Your task to perform on an android device: open app "Cash App" (install if not already installed) Image 0: 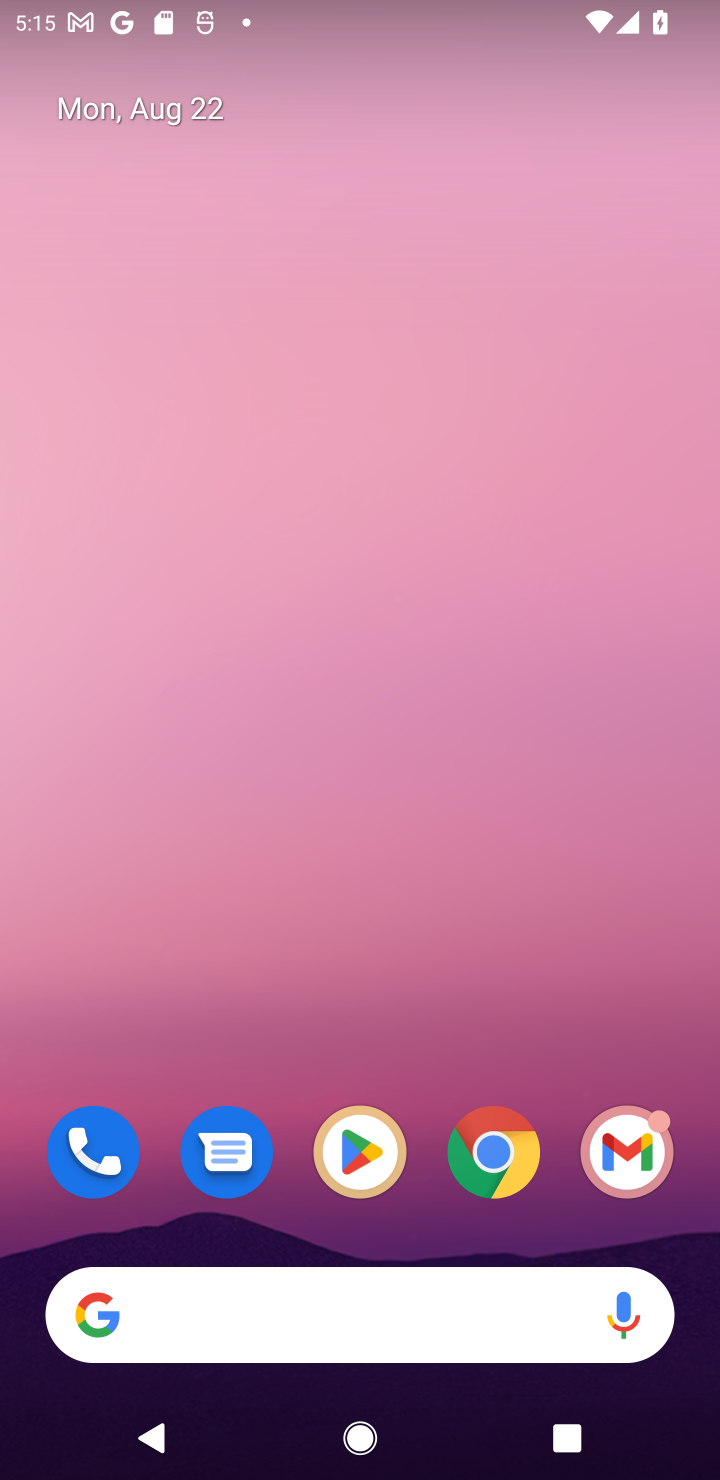
Step 0: click (359, 1154)
Your task to perform on an android device: open app "Cash App" (install if not already installed) Image 1: 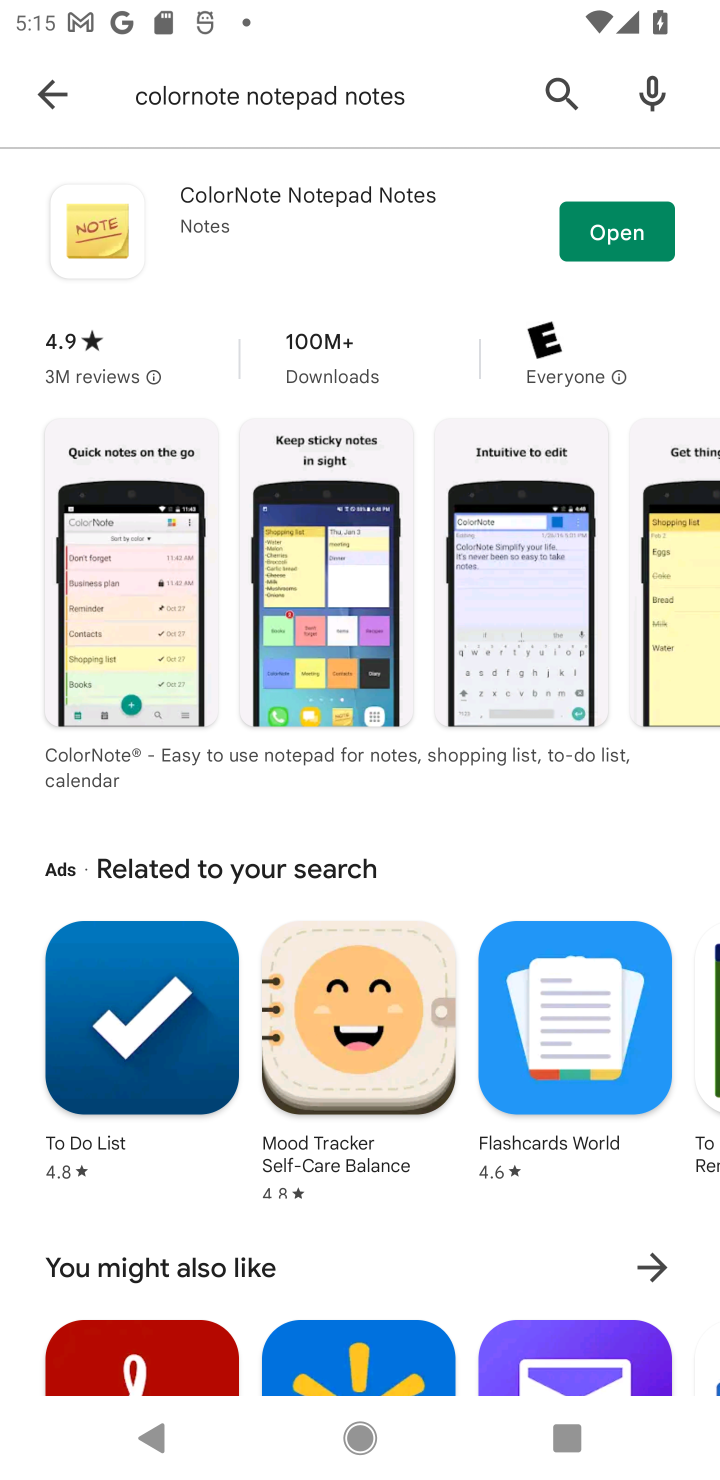
Step 1: click (24, 102)
Your task to perform on an android device: open app "Cash App" (install if not already installed) Image 2: 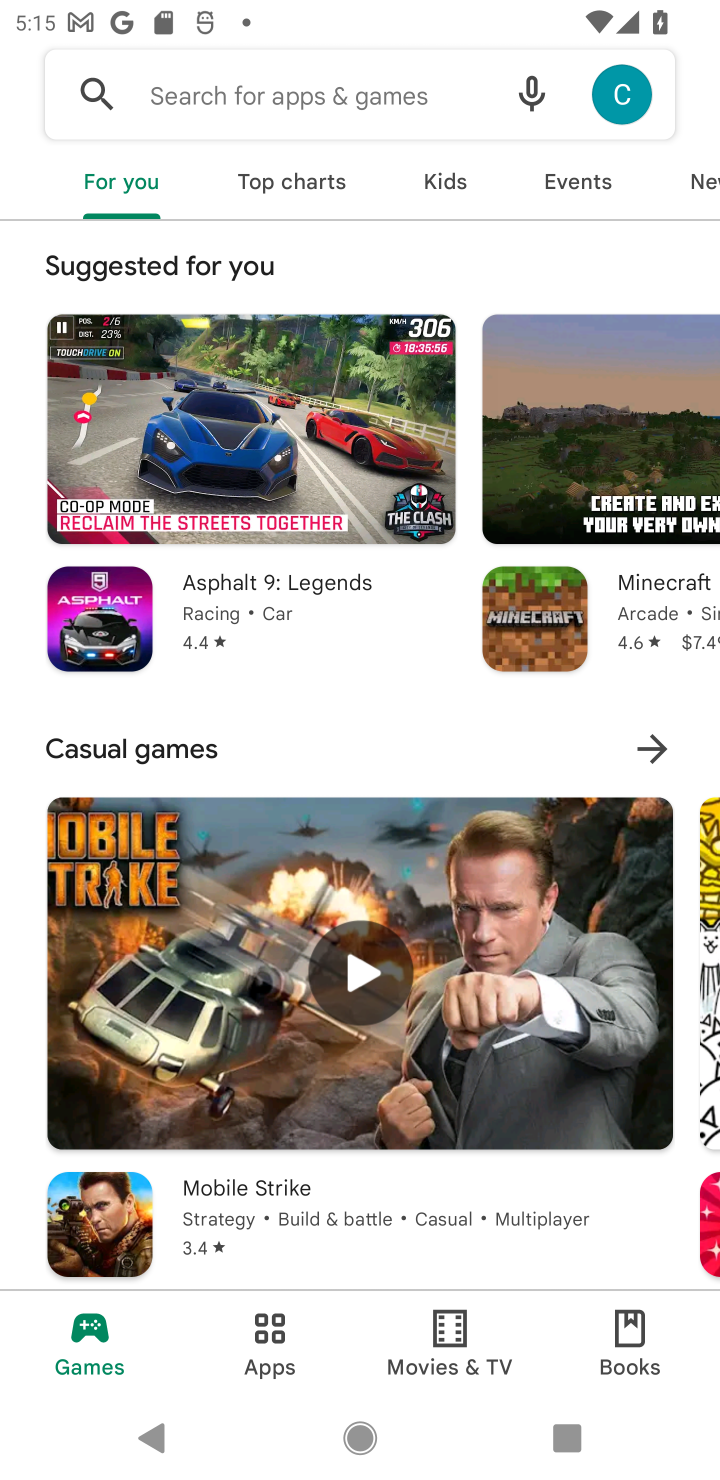
Step 2: click (203, 115)
Your task to perform on an android device: open app "Cash App" (install if not already installed) Image 3: 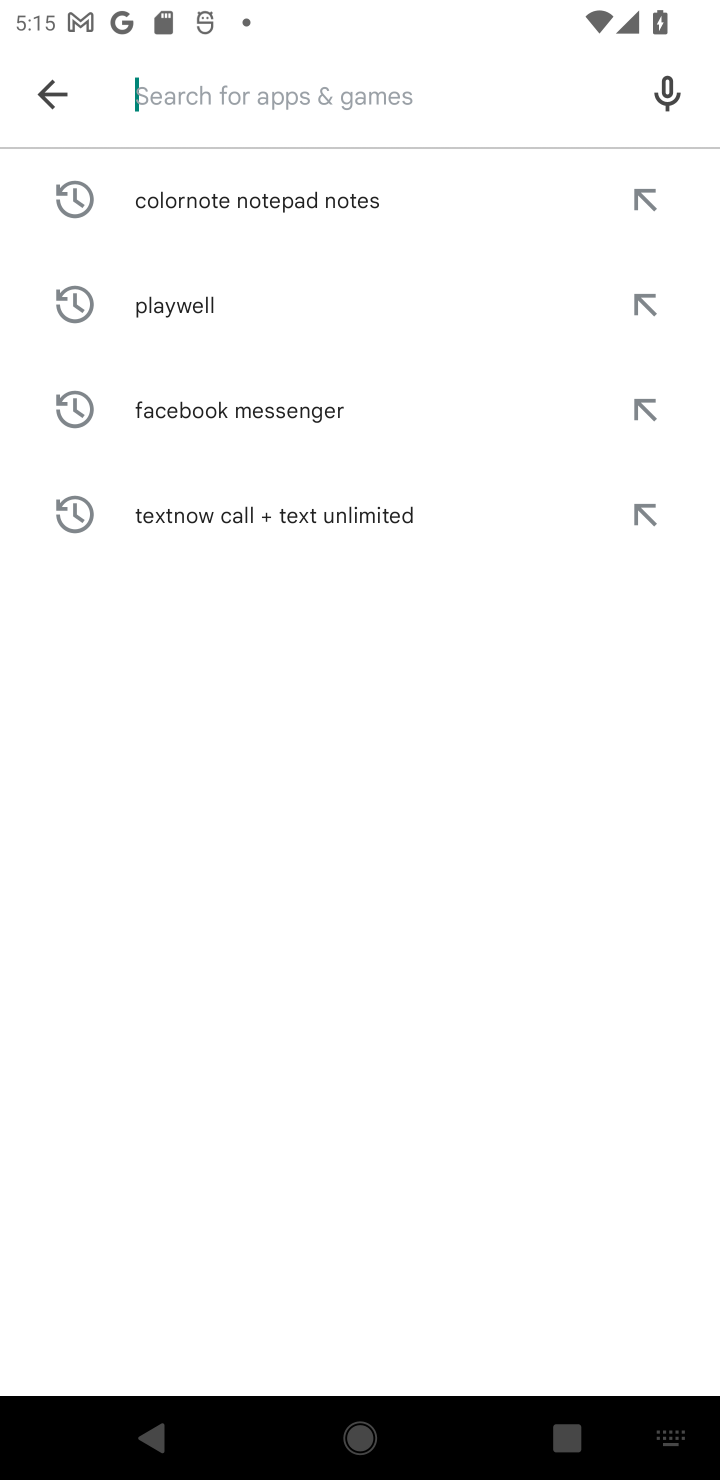
Step 3: type "Cash App"
Your task to perform on an android device: open app "Cash App" (install if not already installed) Image 4: 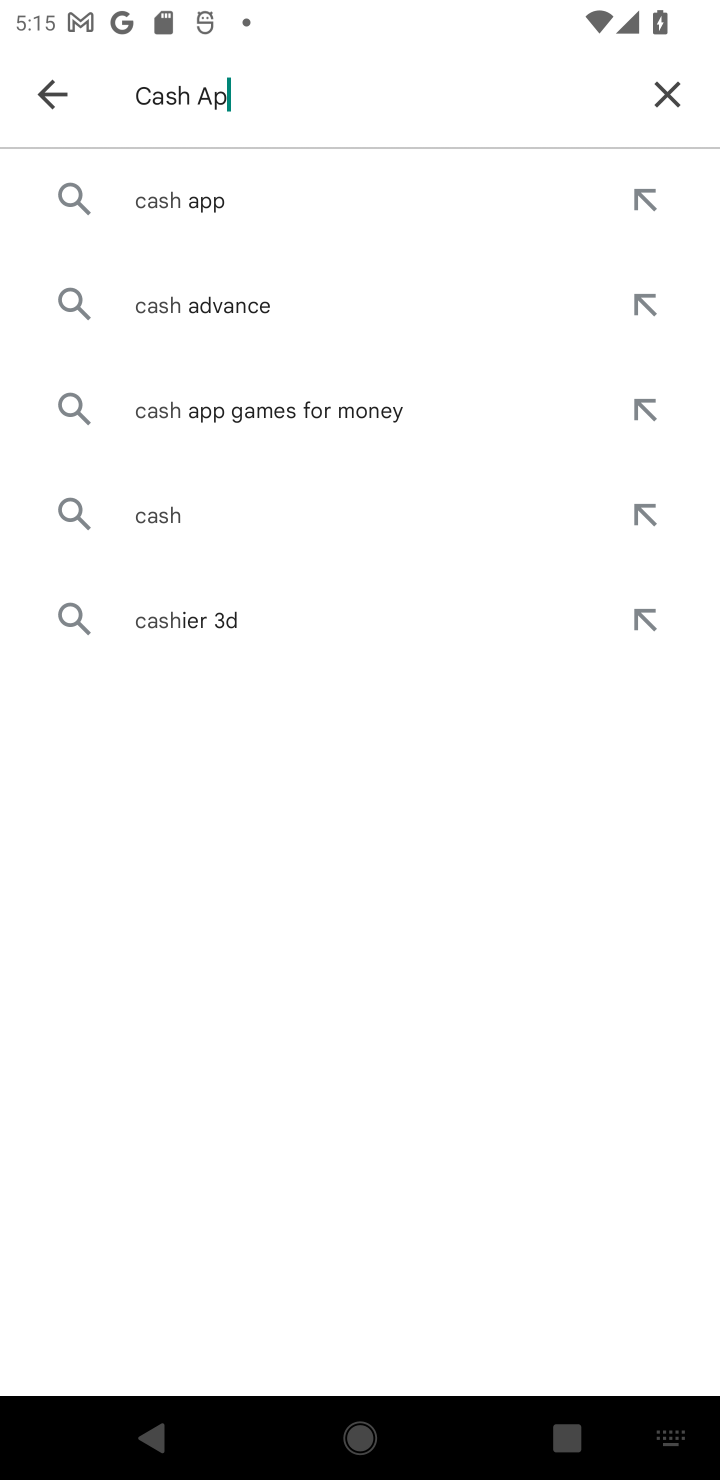
Step 4: type ""
Your task to perform on an android device: open app "Cash App" (install if not already installed) Image 5: 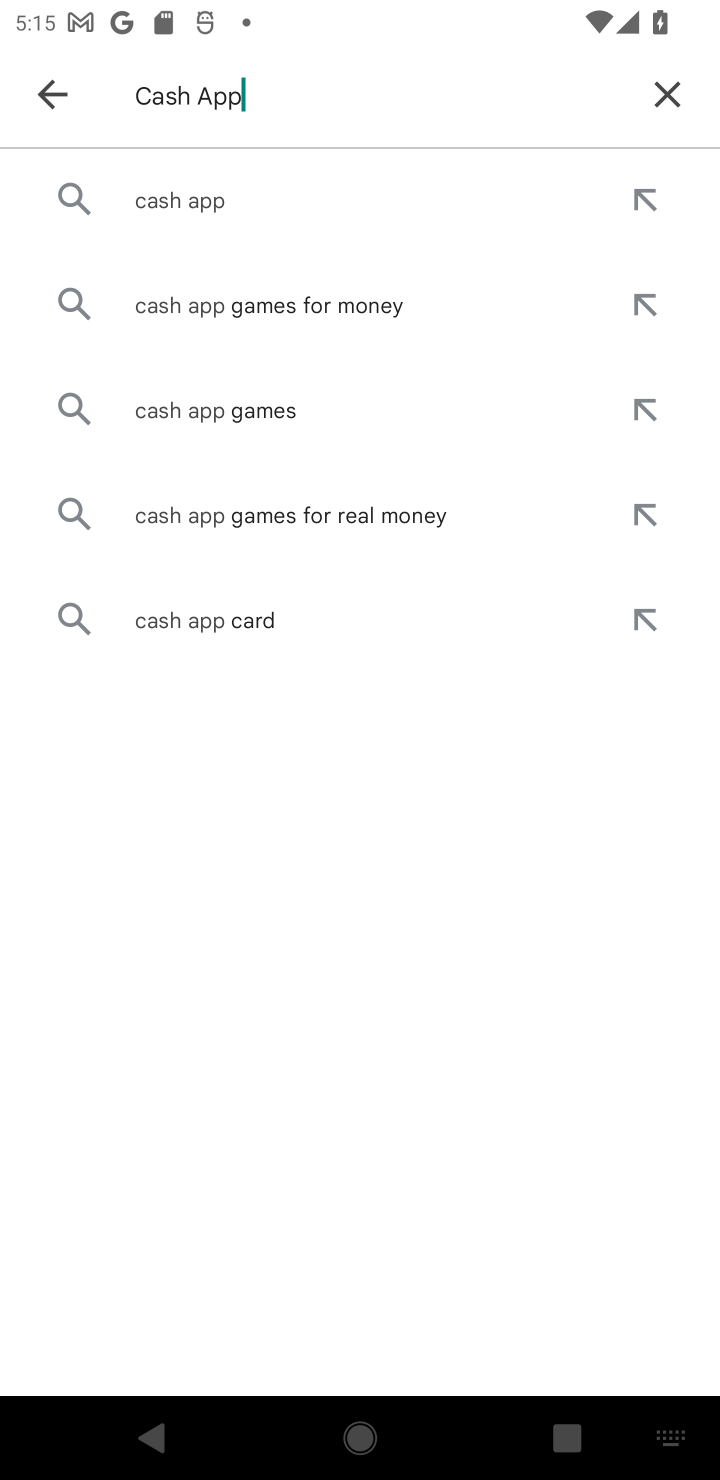
Step 5: click (113, 187)
Your task to perform on an android device: open app "Cash App" (install if not already installed) Image 6: 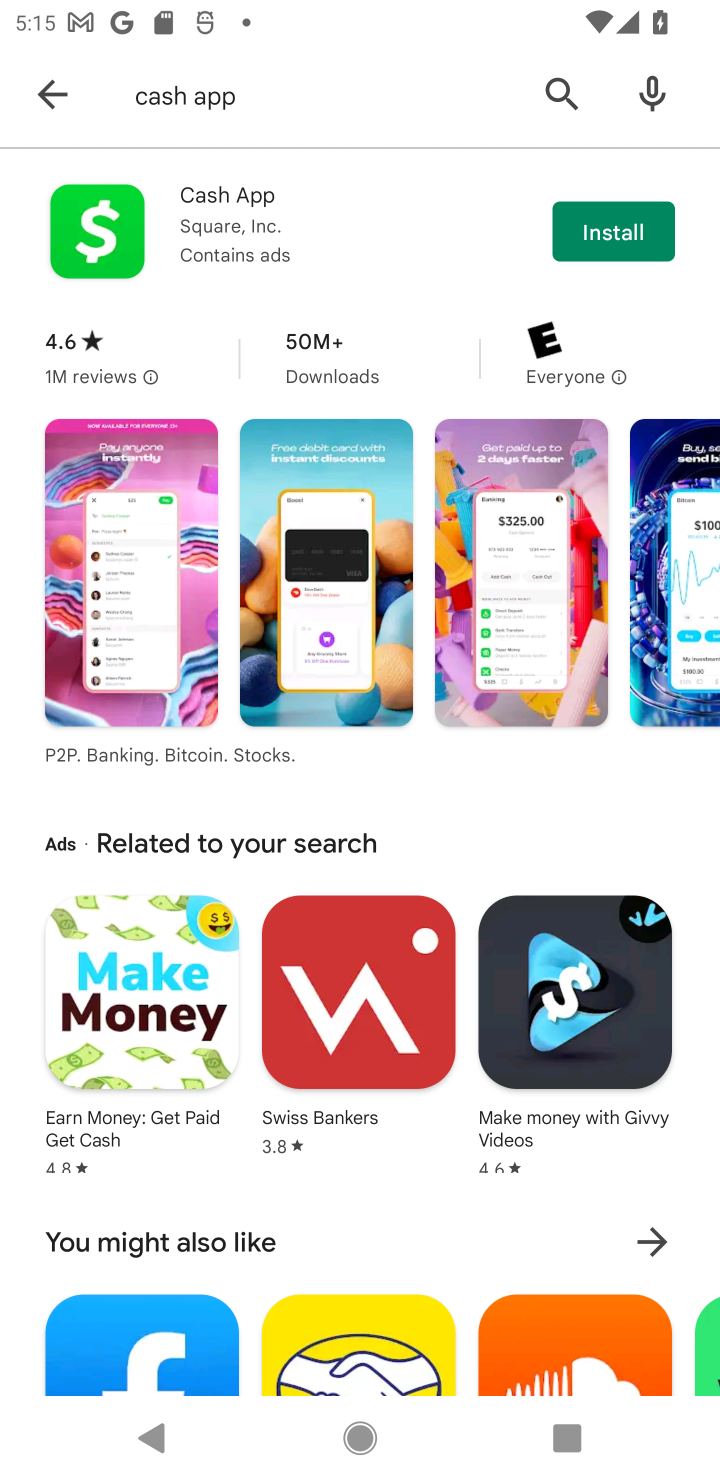
Step 6: click (601, 258)
Your task to perform on an android device: open app "Cash App" (install if not already installed) Image 7: 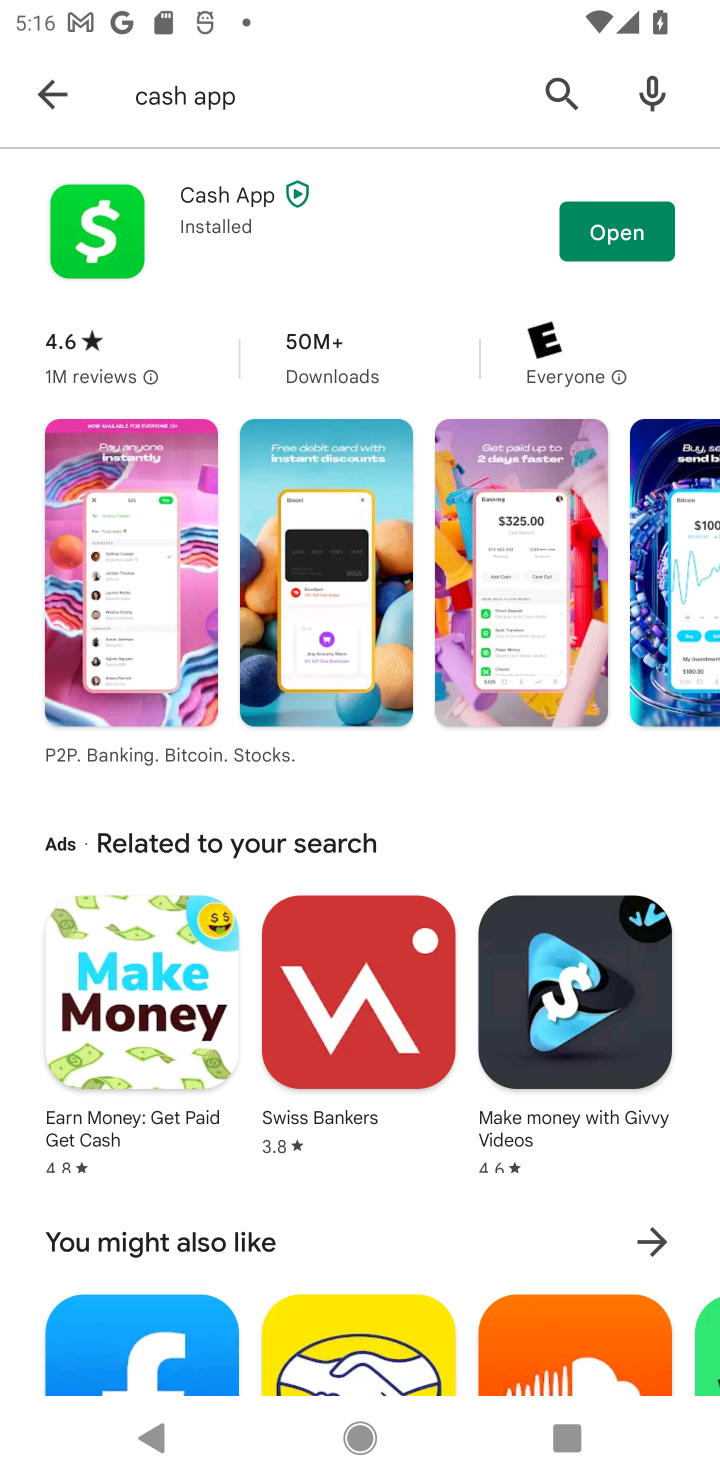
Step 7: click (657, 237)
Your task to perform on an android device: open app "Cash App" (install if not already installed) Image 8: 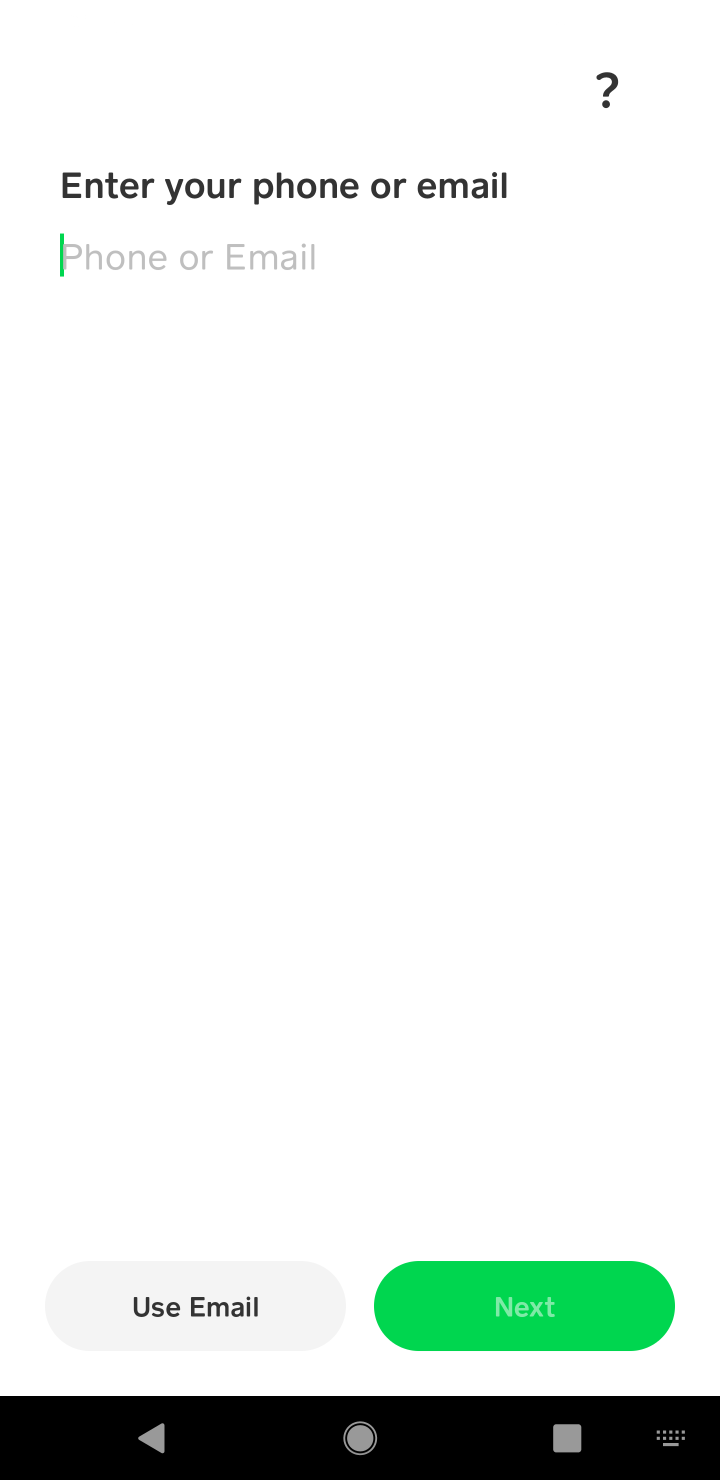
Step 8: task complete